Your task to perform on an android device: Go to location settings Image 0: 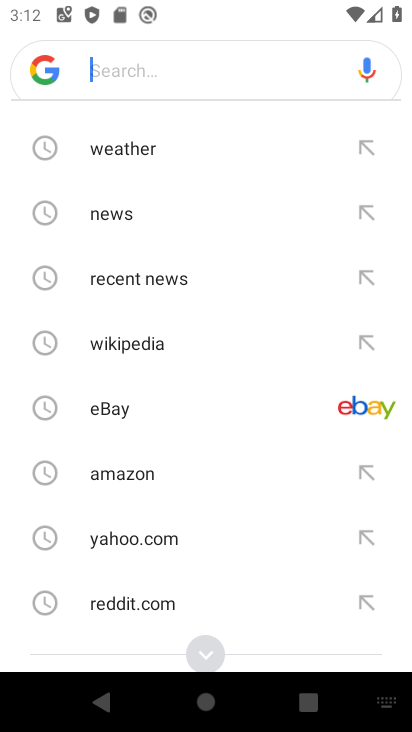
Step 0: press home button
Your task to perform on an android device: Go to location settings Image 1: 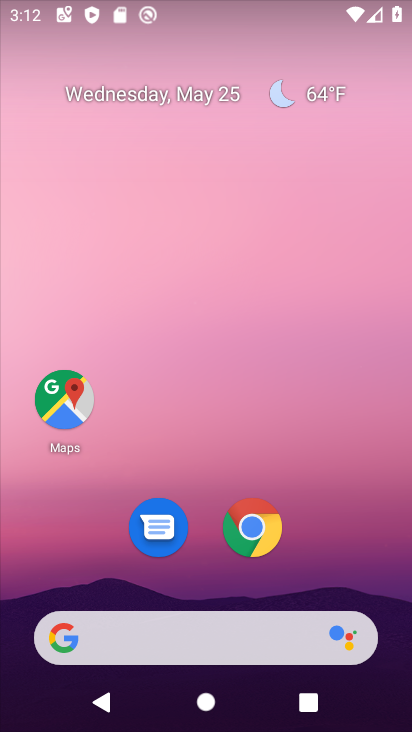
Step 1: drag from (172, 594) to (256, 86)
Your task to perform on an android device: Go to location settings Image 2: 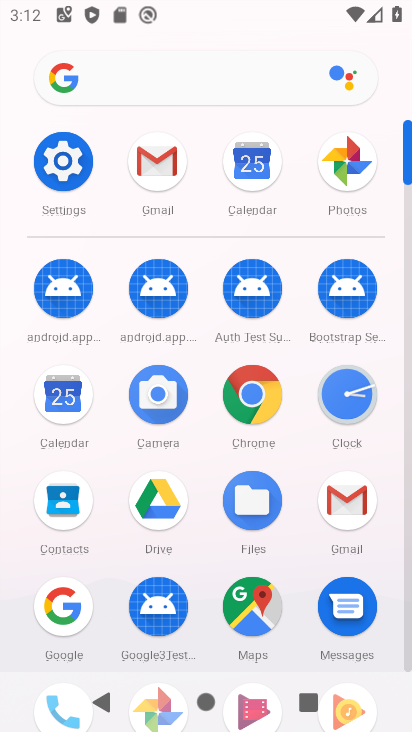
Step 2: click (71, 159)
Your task to perform on an android device: Go to location settings Image 3: 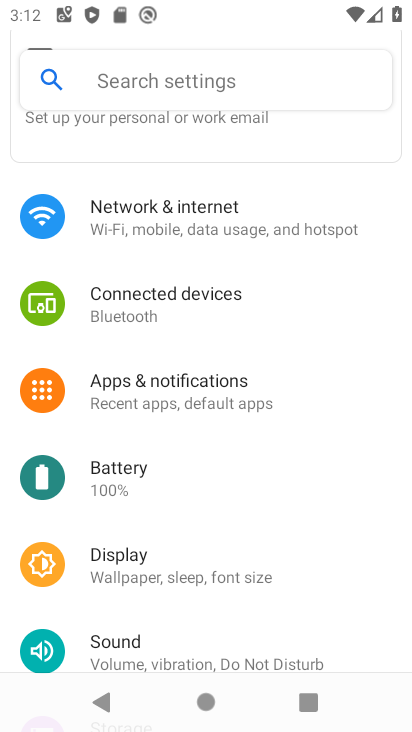
Step 3: drag from (147, 617) to (274, 94)
Your task to perform on an android device: Go to location settings Image 4: 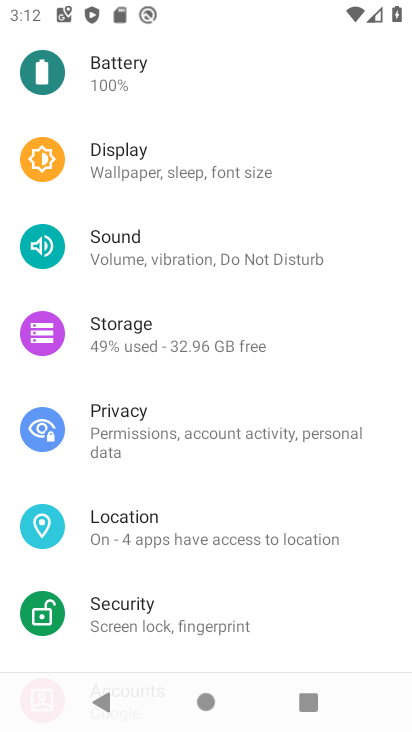
Step 4: click (136, 531)
Your task to perform on an android device: Go to location settings Image 5: 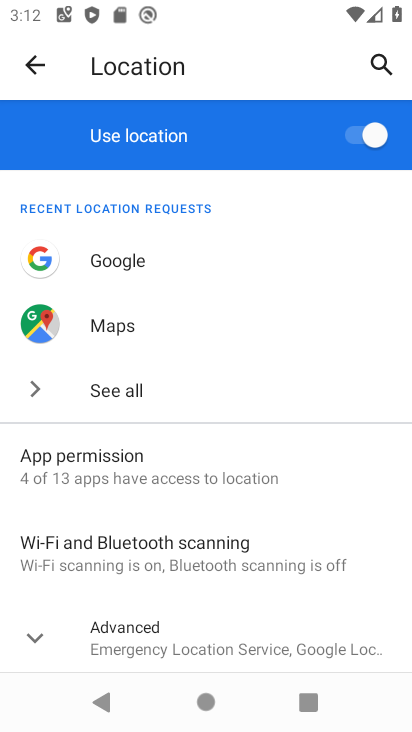
Step 5: task complete